Your task to perform on an android device: Show me the alarms in the clock app Image 0: 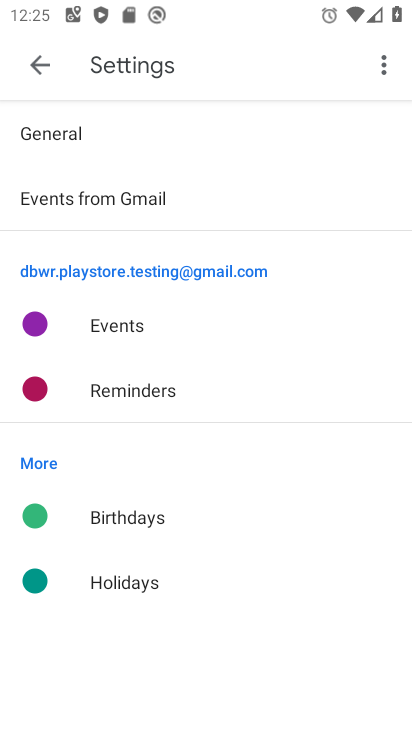
Step 0: press home button
Your task to perform on an android device: Show me the alarms in the clock app Image 1: 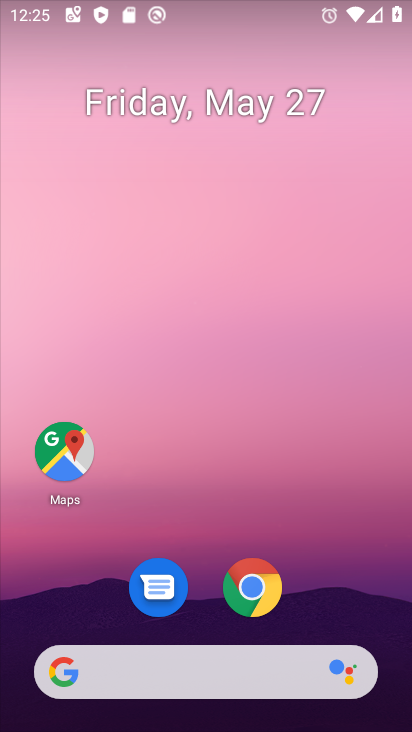
Step 1: drag from (201, 717) to (242, 232)
Your task to perform on an android device: Show me the alarms in the clock app Image 2: 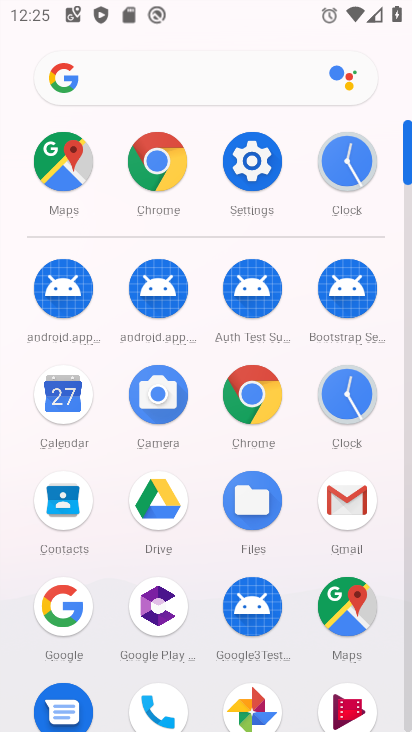
Step 2: click (329, 379)
Your task to perform on an android device: Show me the alarms in the clock app Image 3: 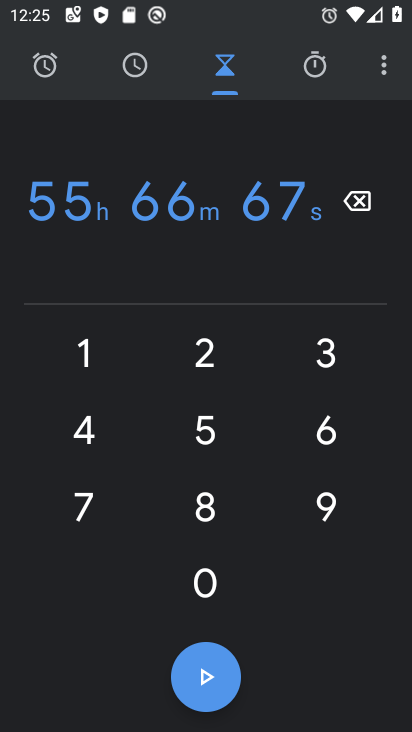
Step 3: click (46, 77)
Your task to perform on an android device: Show me the alarms in the clock app Image 4: 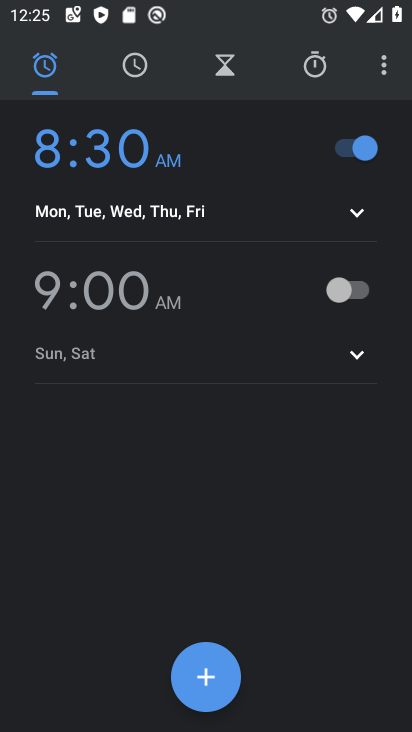
Step 4: task complete